Your task to perform on an android device: check android version Image 0: 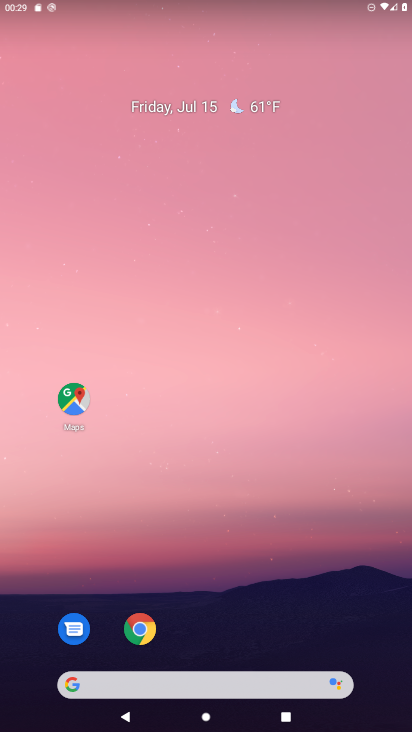
Step 0: drag from (203, 626) to (257, 11)
Your task to perform on an android device: check android version Image 1: 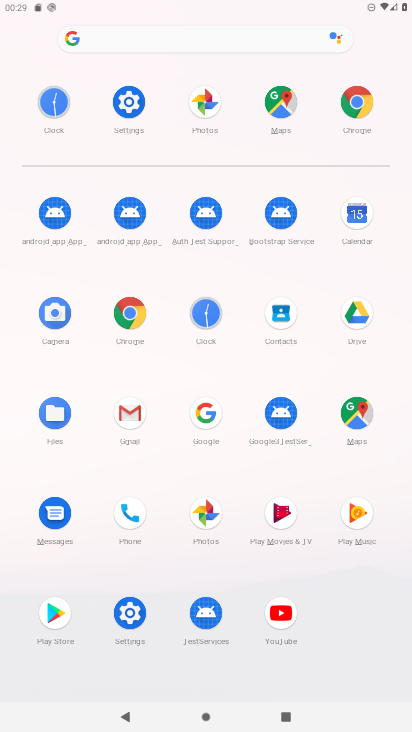
Step 1: click (124, 105)
Your task to perform on an android device: check android version Image 2: 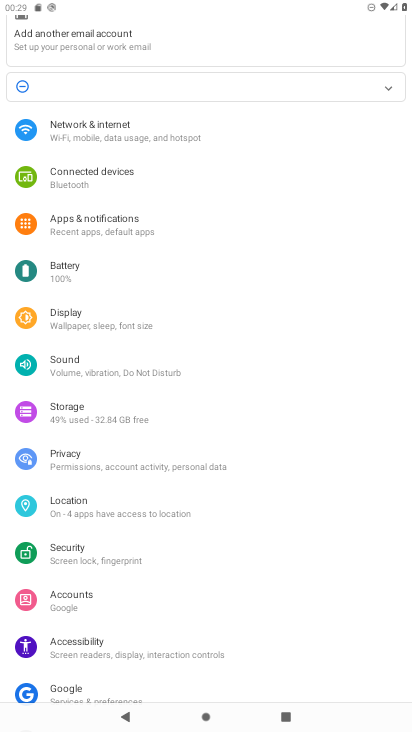
Step 2: drag from (73, 660) to (93, 106)
Your task to perform on an android device: check android version Image 3: 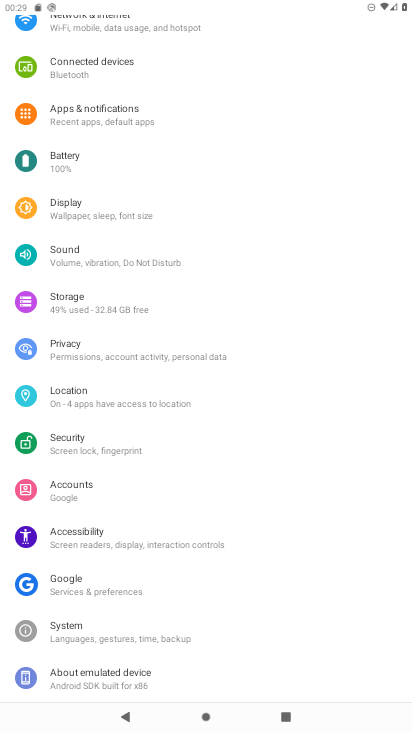
Step 3: click (105, 677)
Your task to perform on an android device: check android version Image 4: 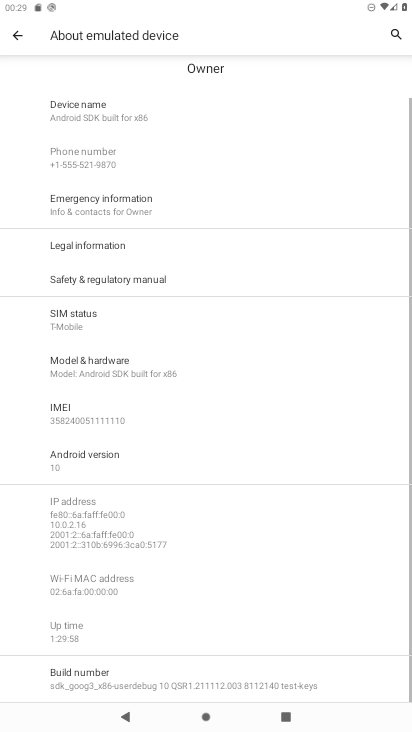
Step 4: click (141, 436)
Your task to perform on an android device: check android version Image 5: 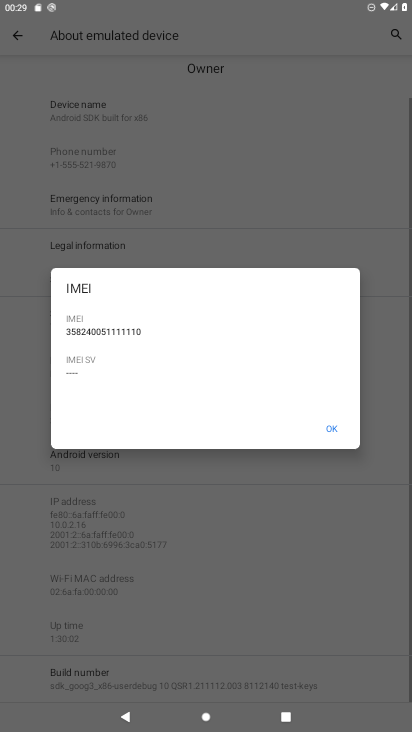
Step 5: click (336, 431)
Your task to perform on an android device: check android version Image 6: 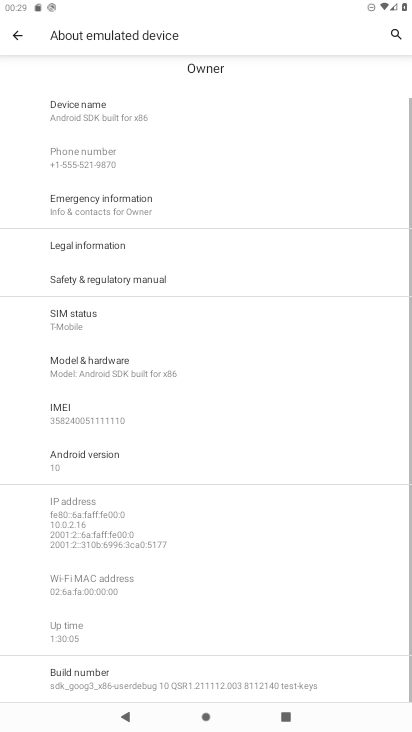
Step 6: click (136, 449)
Your task to perform on an android device: check android version Image 7: 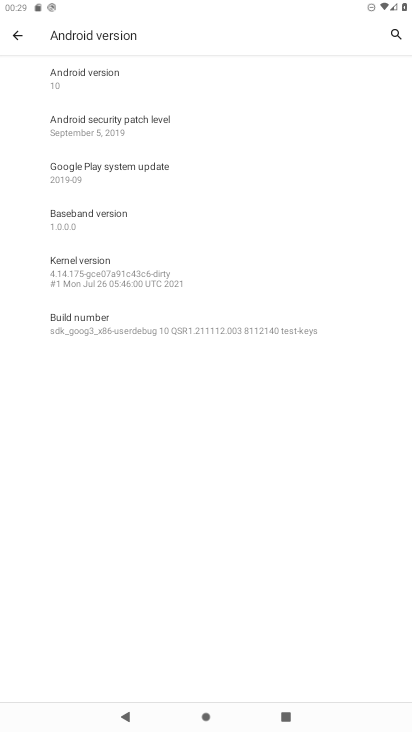
Step 7: task complete